Your task to perform on an android device: Open settings on Google Maps Image 0: 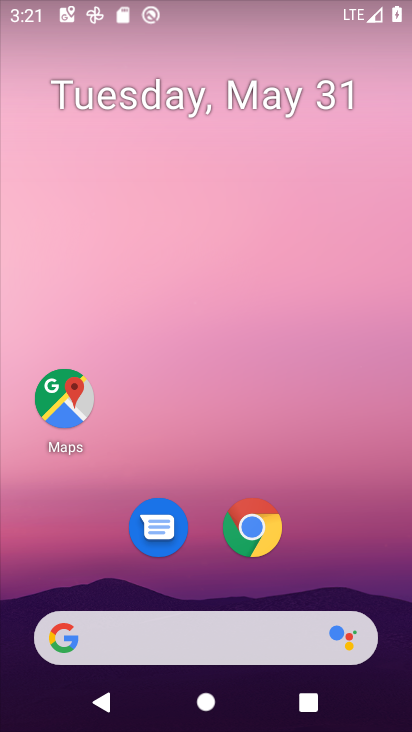
Step 0: drag from (387, 501) to (406, 14)
Your task to perform on an android device: Open settings on Google Maps Image 1: 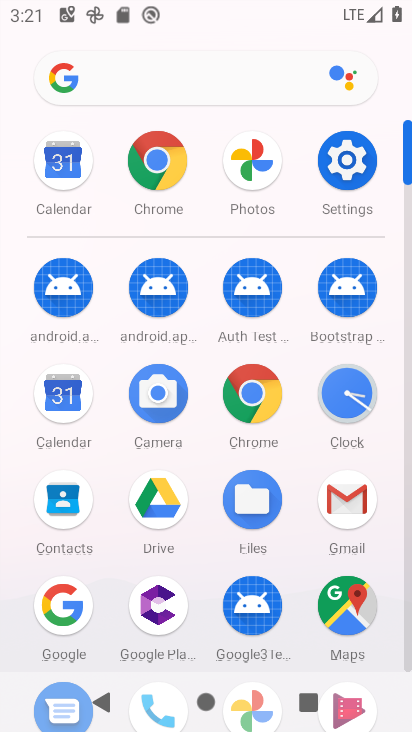
Step 1: drag from (378, 554) to (375, 242)
Your task to perform on an android device: Open settings on Google Maps Image 2: 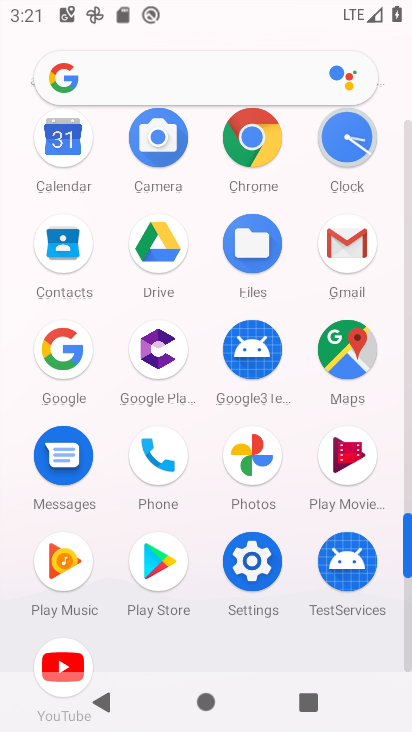
Step 2: click (354, 338)
Your task to perform on an android device: Open settings on Google Maps Image 3: 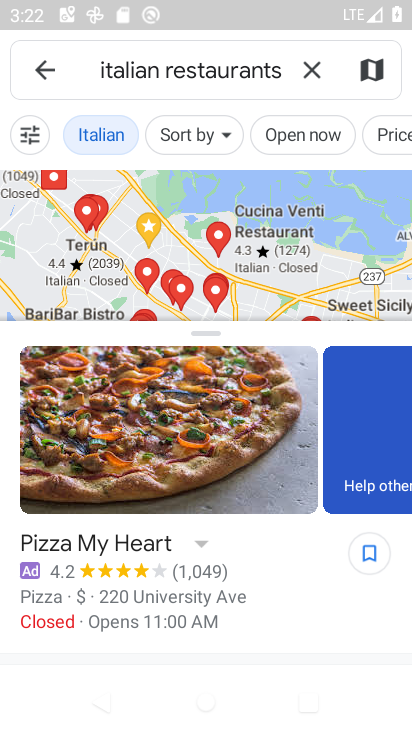
Step 3: task complete